Your task to perform on an android device: Go to Maps Image 0: 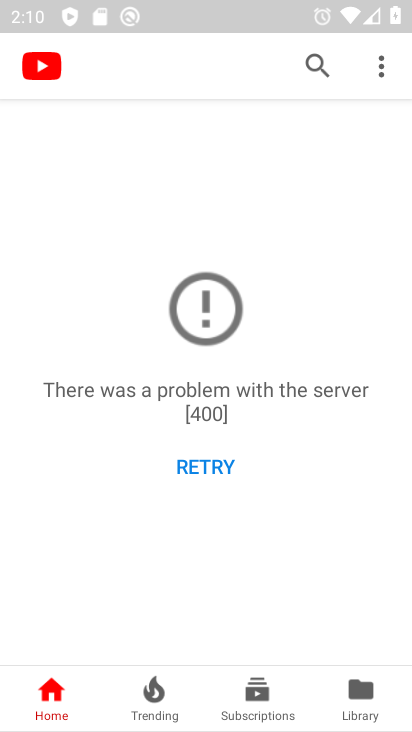
Step 0: press home button
Your task to perform on an android device: Go to Maps Image 1: 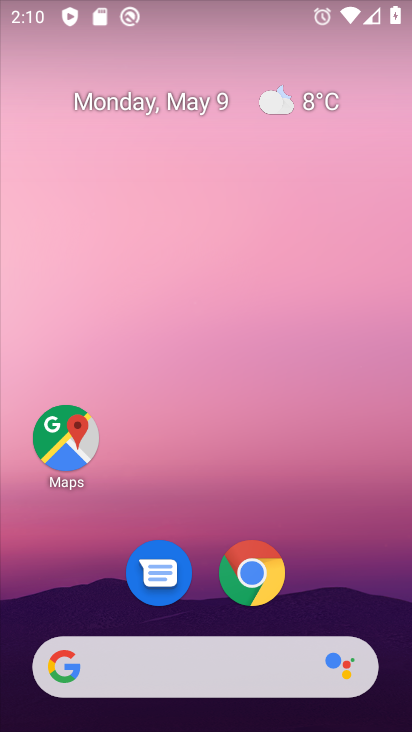
Step 1: drag from (178, 664) to (348, 78)
Your task to perform on an android device: Go to Maps Image 2: 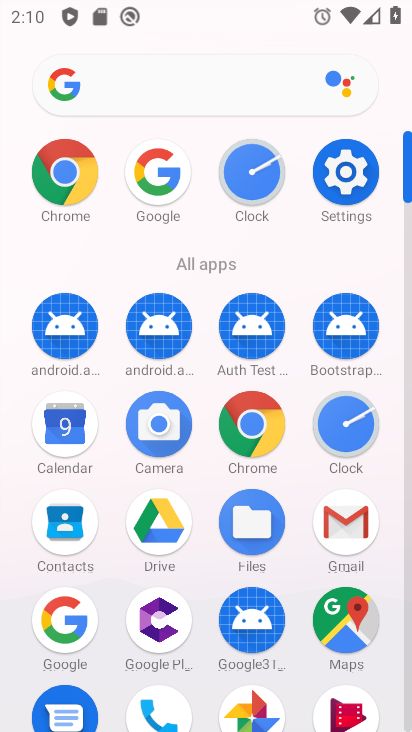
Step 2: click (338, 638)
Your task to perform on an android device: Go to Maps Image 3: 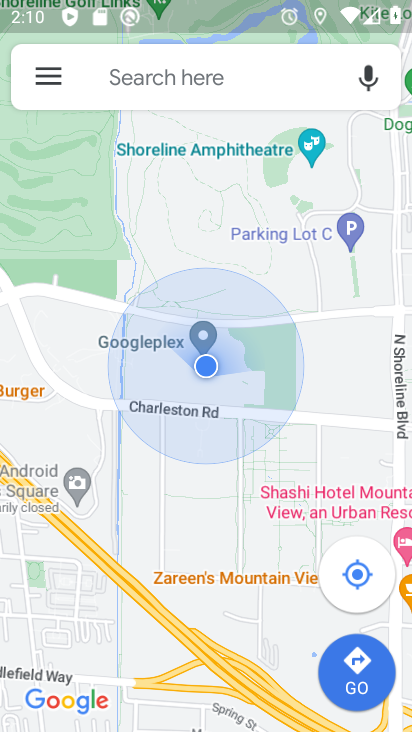
Step 3: task complete